Your task to perform on an android device: set the stopwatch Image 0: 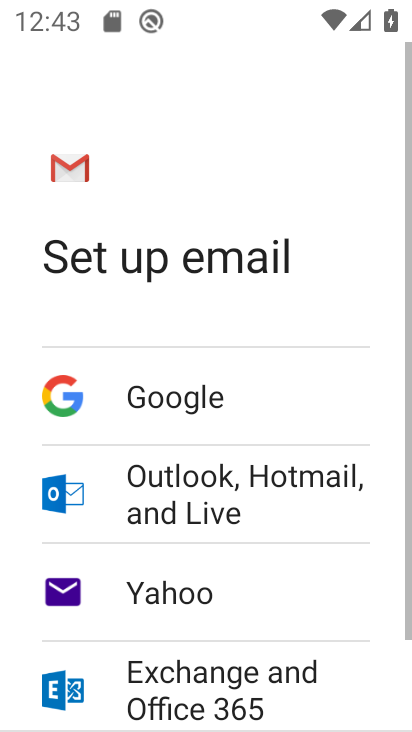
Step 0: press home button
Your task to perform on an android device: set the stopwatch Image 1: 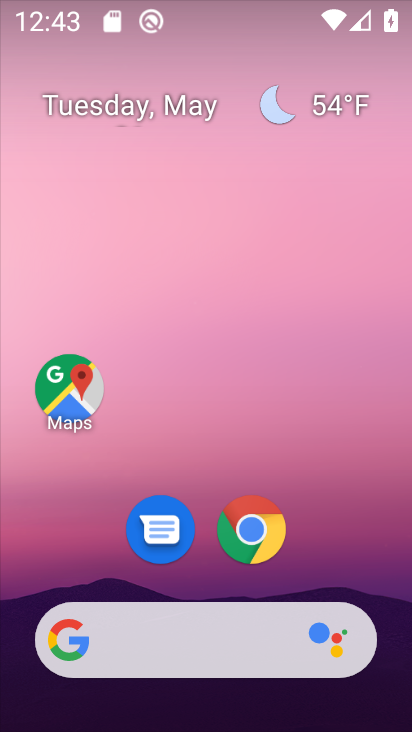
Step 1: drag from (316, 566) to (323, 257)
Your task to perform on an android device: set the stopwatch Image 2: 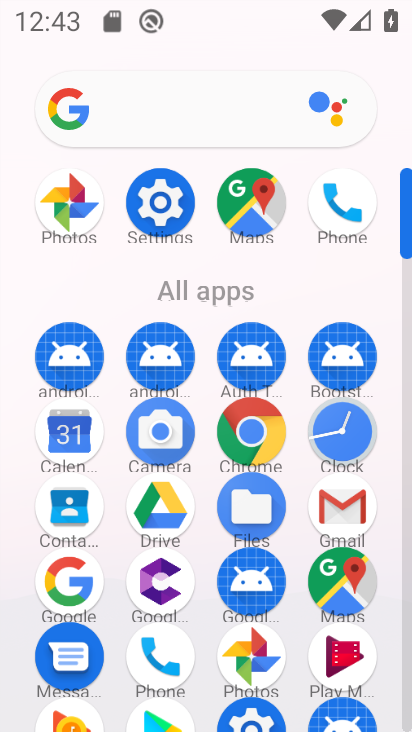
Step 2: click (341, 414)
Your task to perform on an android device: set the stopwatch Image 3: 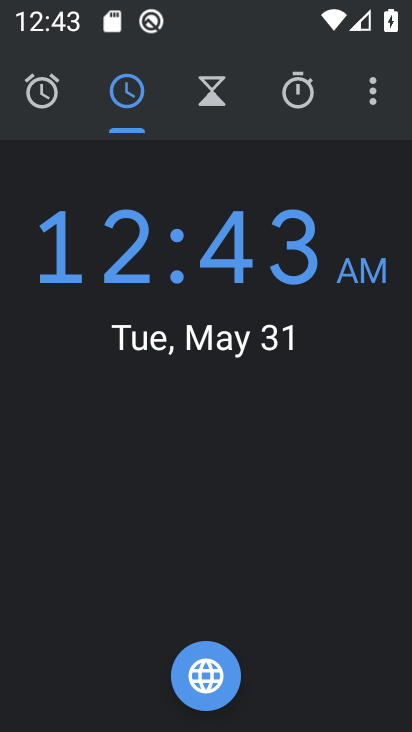
Step 3: press home button
Your task to perform on an android device: set the stopwatch Image 4: 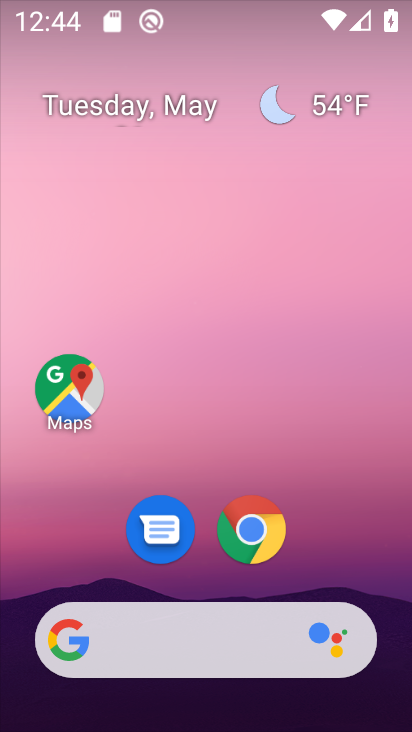
Step 4: drag from (211, 556) to (221, 209)
Your task to perform on an android device: set the stopwatch Image 5: 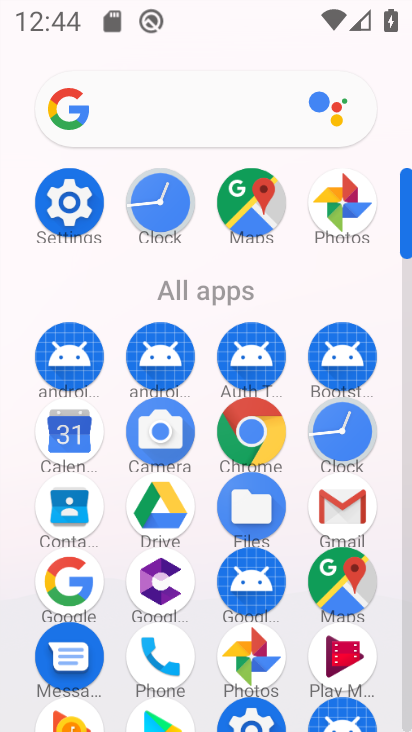
Step 5: click (336, 431)
Your task to perform on an android device: set the stopwatch Image 6: 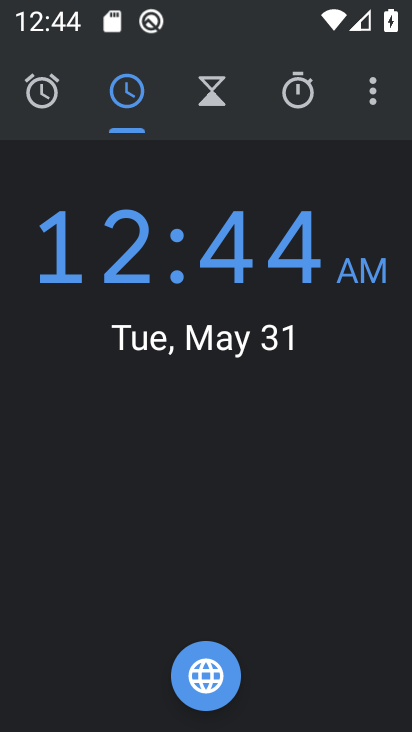
Step 6: click (315, 90)
Your task to perform on an android device: set the stopwatch Image 7: 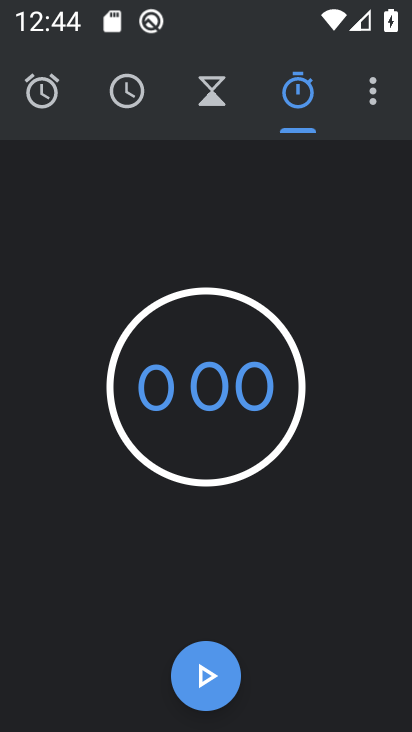
Step 7: task complete